Your task to perform on an android device: change timer sound Image 0: 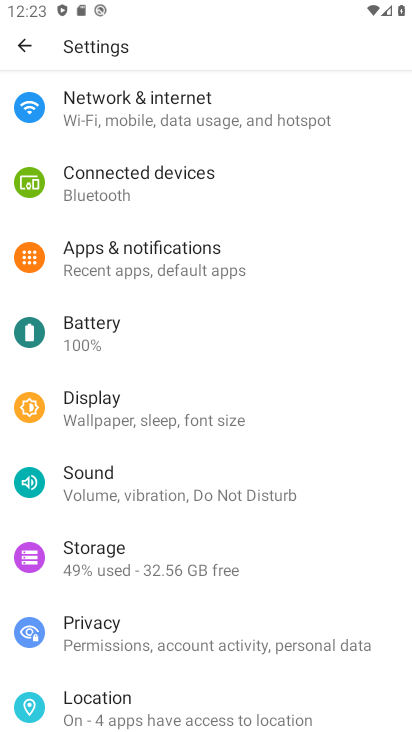
Step 0: press home button
Your task to perform on an android device: change timer sound Image 1: 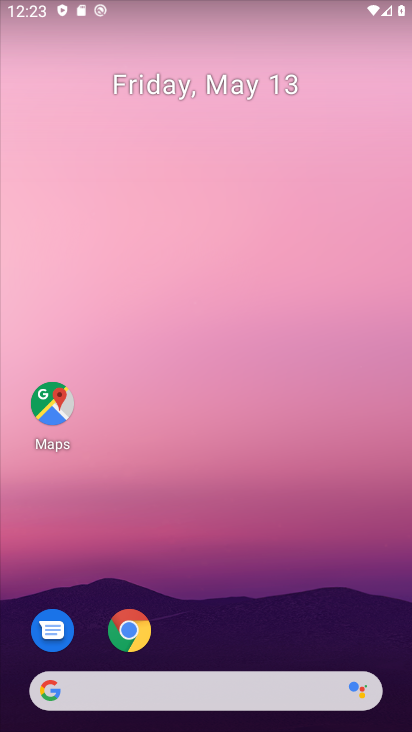
Step 1: drag from (236, 715) to (274, 231)
Your task to perform on an android device: change timer sound Image 2: 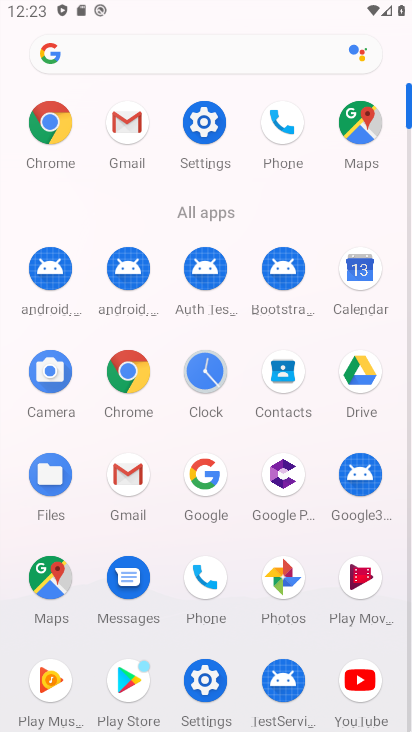
Step 2: click (209, 380)
Your task to perform on an android device: change timer sound Image 3: 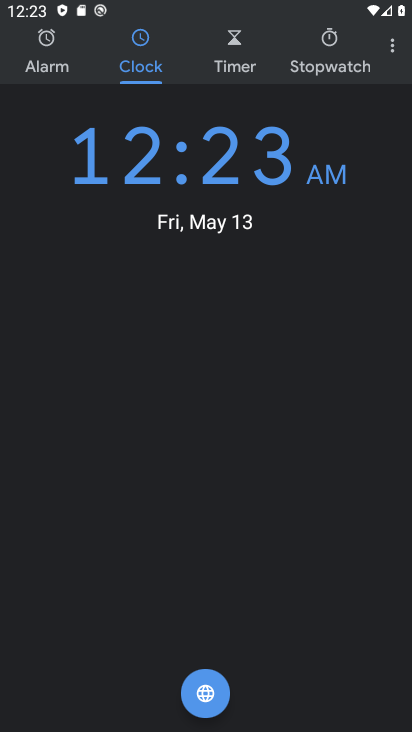
Step 3: click (376, 51)
Your task to perform on an android device: change timer sound Image 4: 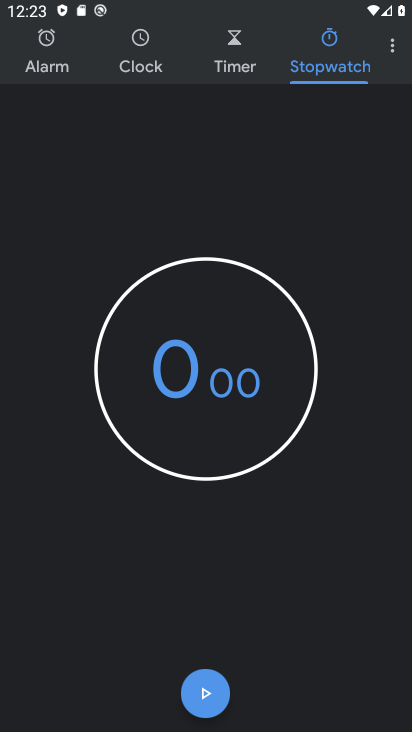
Step 4: click (387, 51)
Your task to perform on an android device: change timer sound Image 5: 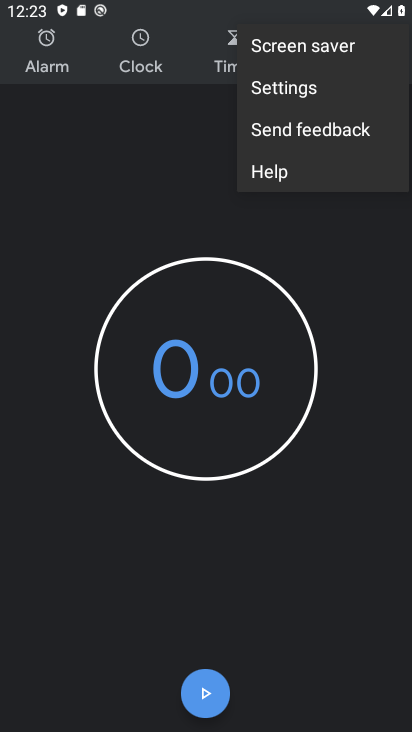
Step 5: click (305, 99)
Your task to perform on an android device: change timer sound Image 6: 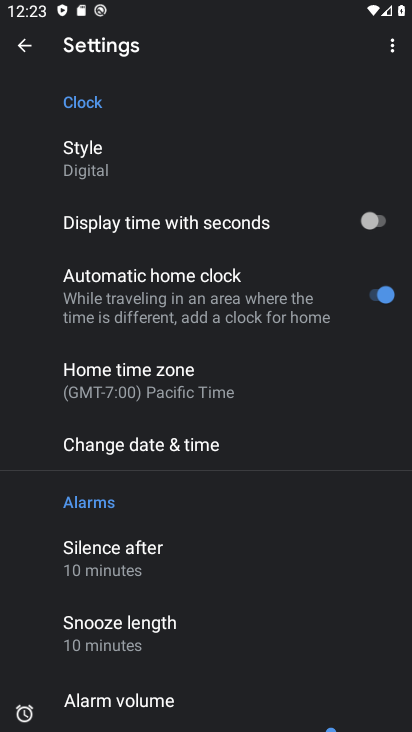
Step 6: drag from (195, 550) to (293, 270)
Your task to perform on an android device: change timer sound Image 7: 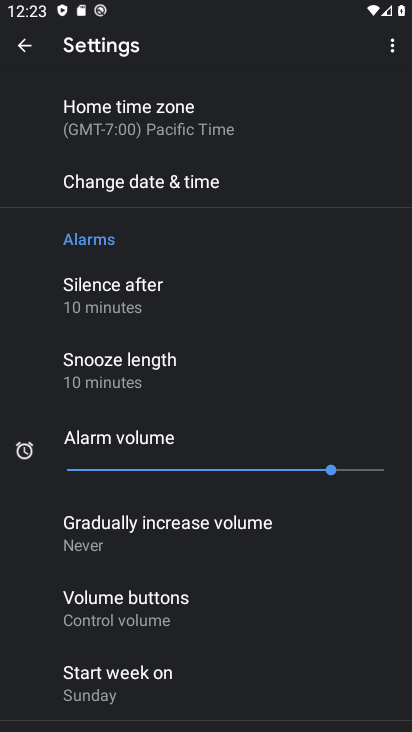
Step 7: drag from (179, 588) to (250, 411)
Your task to perform on an android device: change timer sound Image 8: 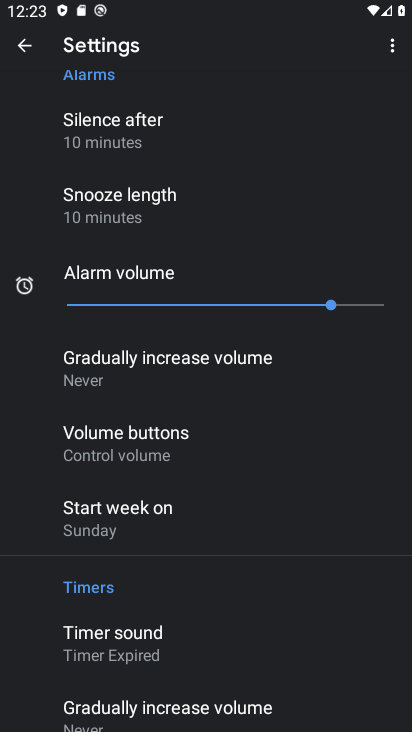
Step 8: click (133, 629)
Your task to perform on an android device: change timer sound Image 9: 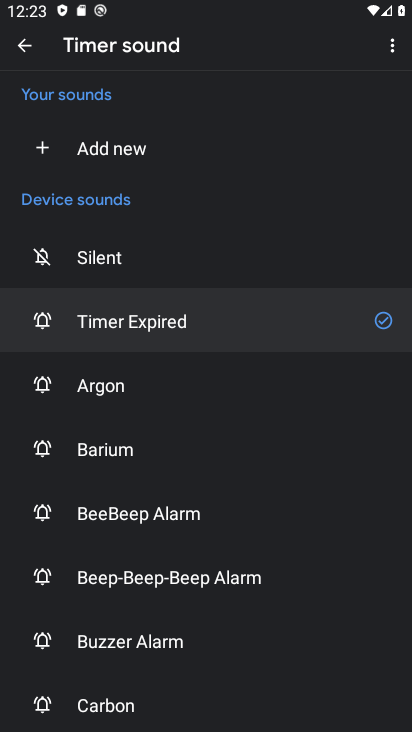
Step 9: click (168, 508)
Your task to perform on an android device: change timer sound Image 10: 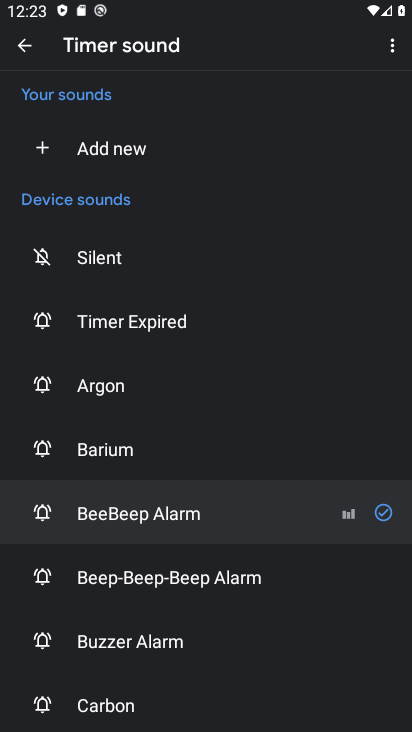
Step 10: task complete